Your task to perform on an android device: refresh tabs in the chrome app Image 0: 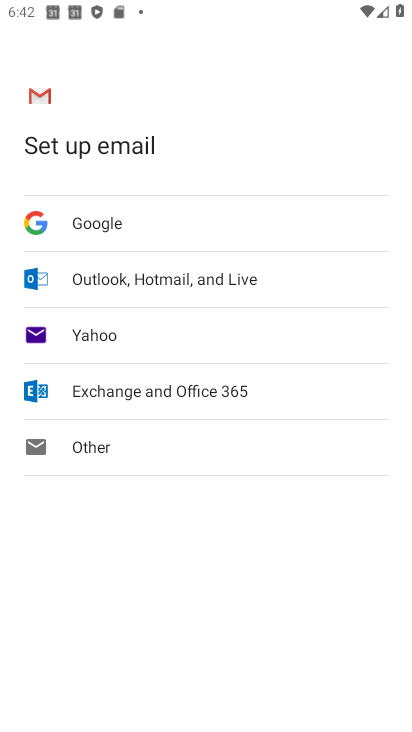
Step 0: click (158, 335)
Your task to perform on an android device: refresh tabs in the chrome app Image 1: 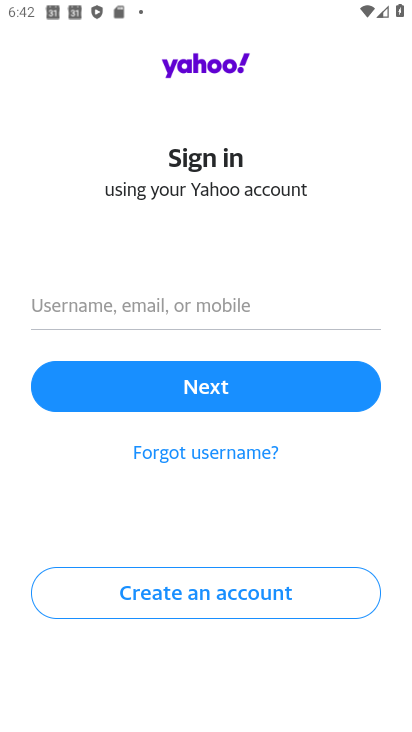
Step 1: press home button
Your task to perform on an android device: refresh tabs in the chrome app Image 2: 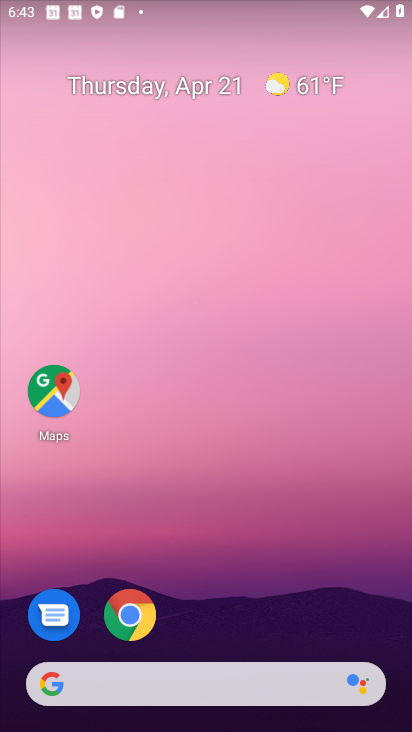
Step 2: drag from (202, 648) to (408, 0)
Your task to perform on an android device: refresh tabs in the chrome app Image 3: 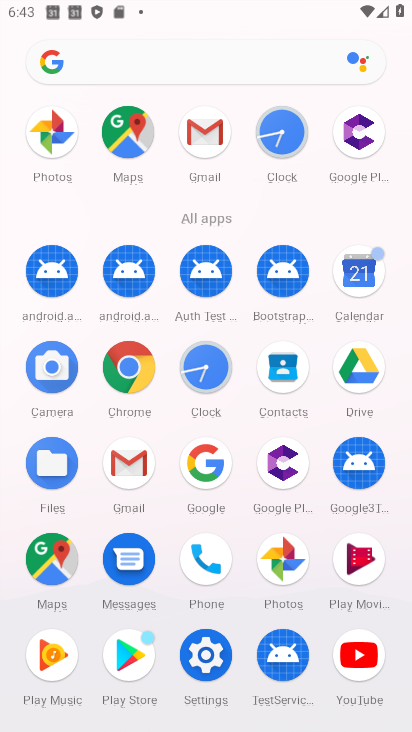
Step 3: click (123, 366)
Your task to perform on an android device: refresh tabs in the chrome app Image 4: 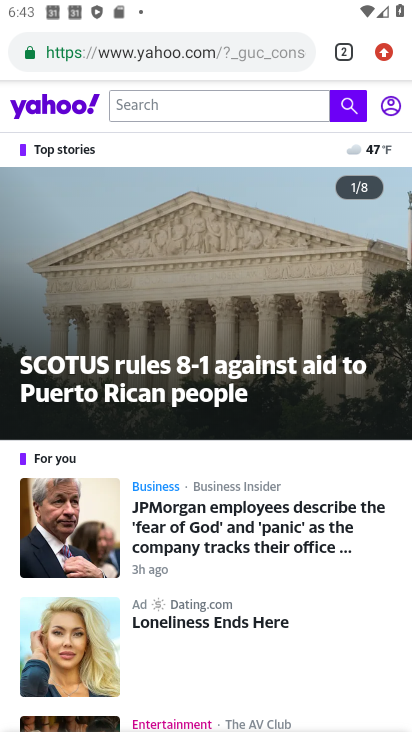
Step 4: click (336, 38)
Your task to perform on an android device: refresh tabs in the chrome app Image 5: 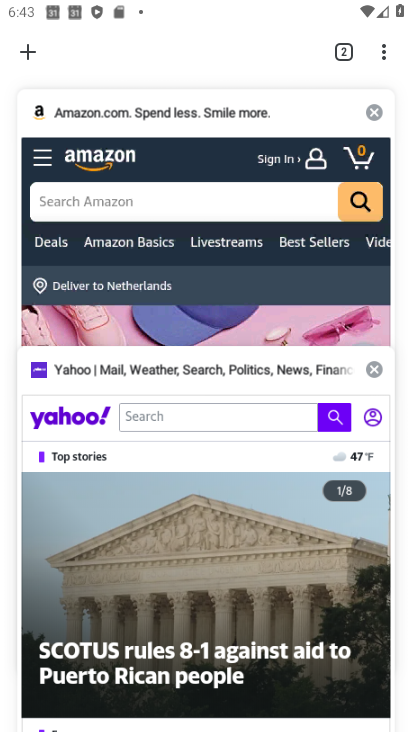
Step 5: click (330, 116)
Your task to perform on an android device: refresh tabs in the chrome app Image 6: 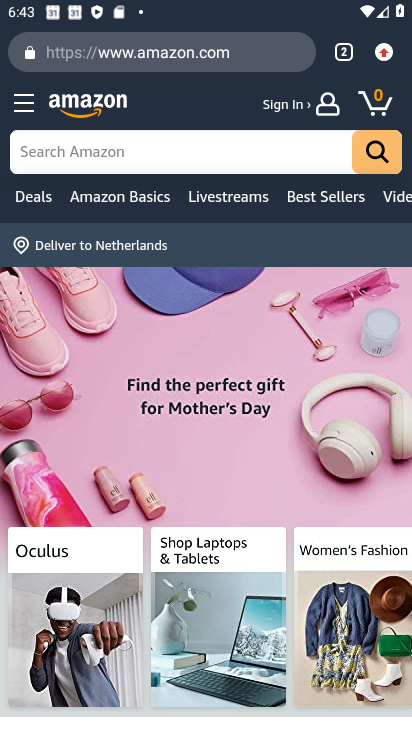
Step 6: click (387, 52)
Your task to perform on an android device: refresh tabs in the chrome app Image 7: 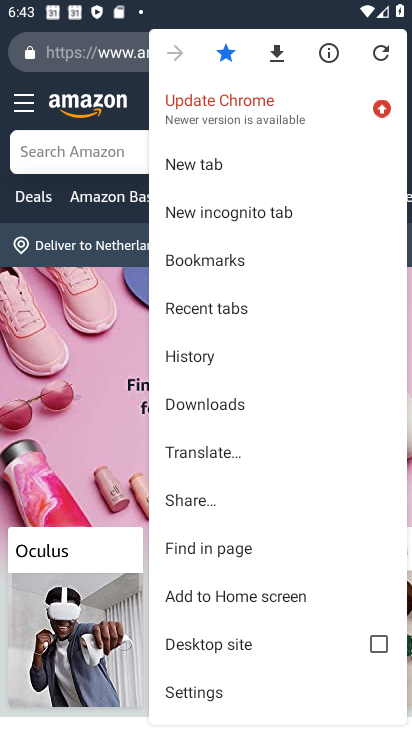
Step 7: click (374, 52)
Your task to perform on an android device: refresh tabs in the chrome app Image 8: 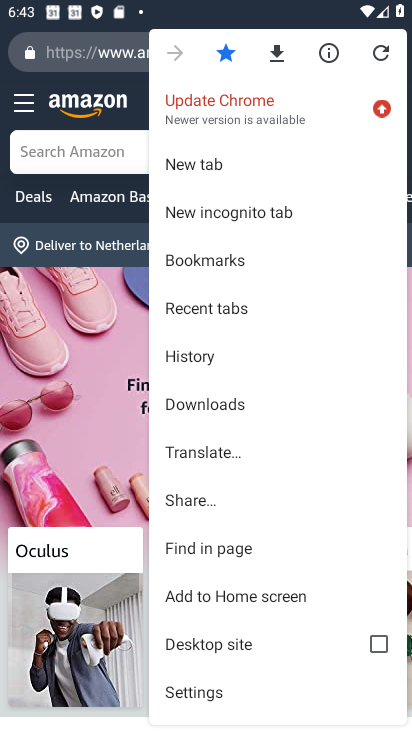
Step 8: click (388, 53)
Your task to perform on an android device: refresh tabs in the chrome app Image 9: 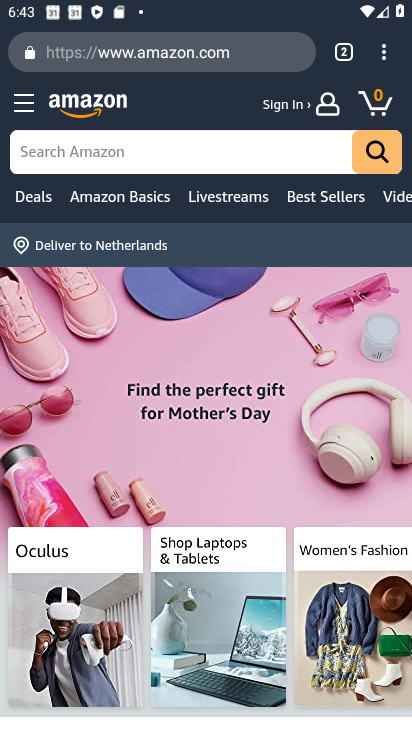
Step 9: task complete